Your task to perform on an android device: turn notification dots off Image 0: 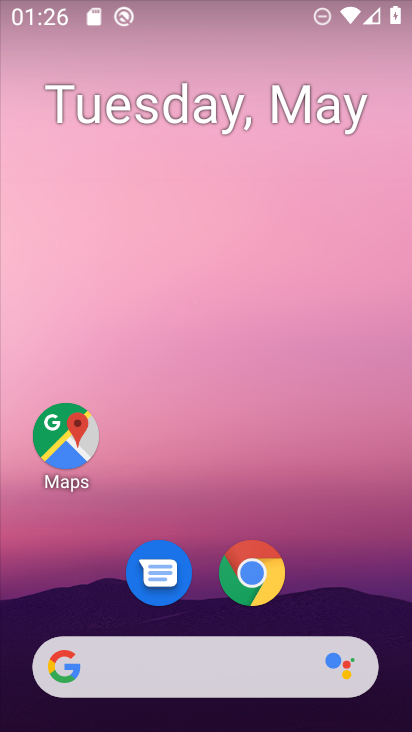
Step 0: drag from (328, 498) to (198, 22)
Your task to perform on an android device: turn notification dots off Image 1: 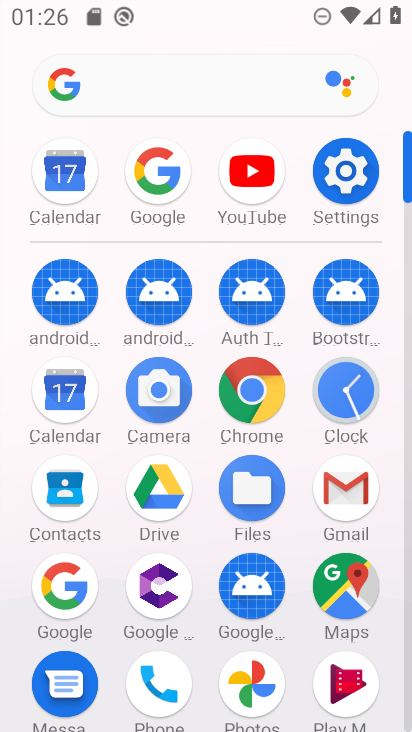
Step 1: click (341, 167)
Your task to perform on an android device: turn notification dots off Image 2: 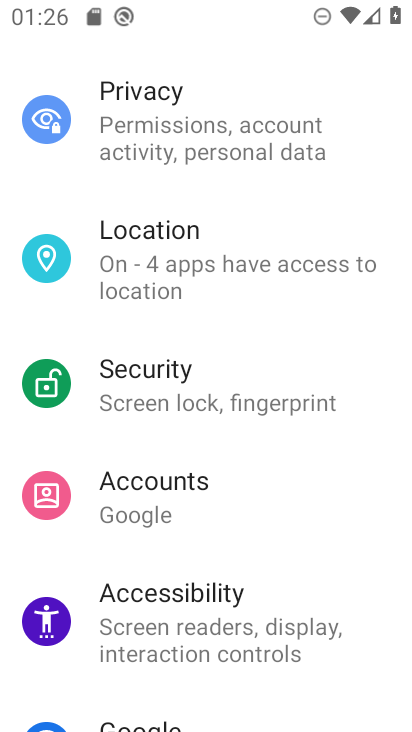
Step 2: drag from (249, 201) to (246, 641)
Your task to perform on an android device: turn notification dots off Image 3: 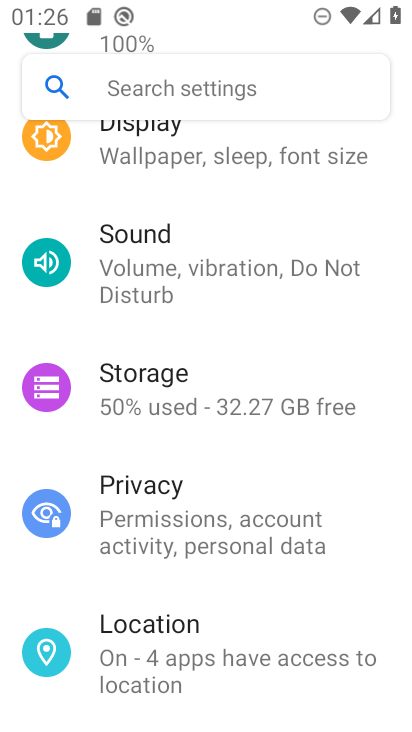
Step 3: drag from (242, 201) to (203, 604)
Your task to perform on an android device: turn notification dots off Image 4: 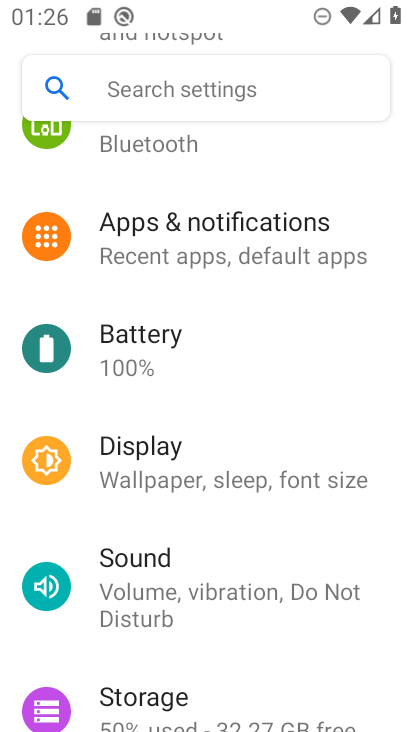
Step 4: click (217, 224)
Your task to perform on an android device: turn notification dots off Image 5: 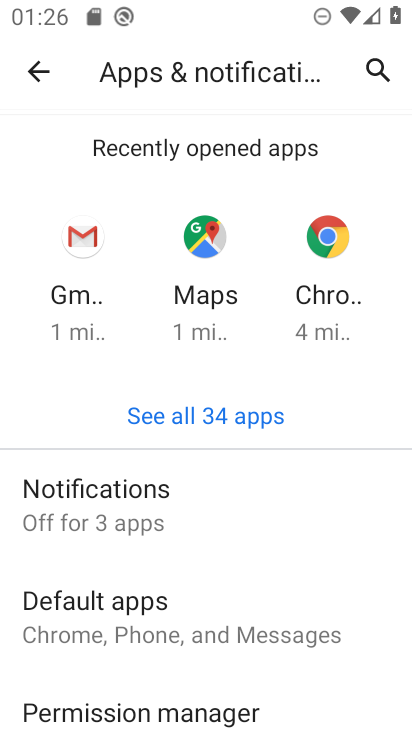
Step 5: click (175, 518)
Your task to perform on an android device: turn notification dots off Image 6: 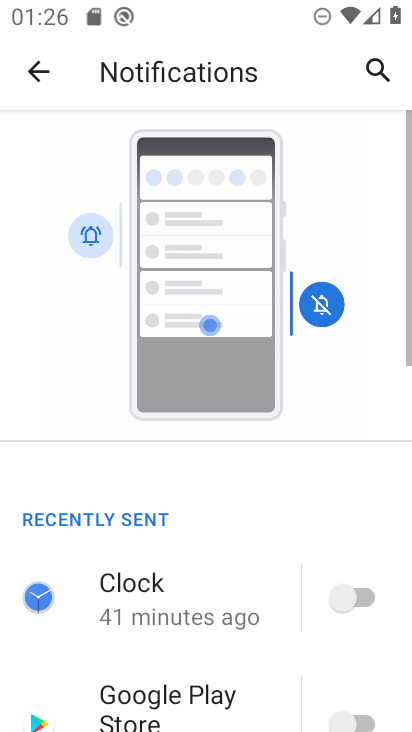
Step 6: drag from (274, 649) to (245, 147)
Your task to perform on an android device: turn notification dots off Image 7: 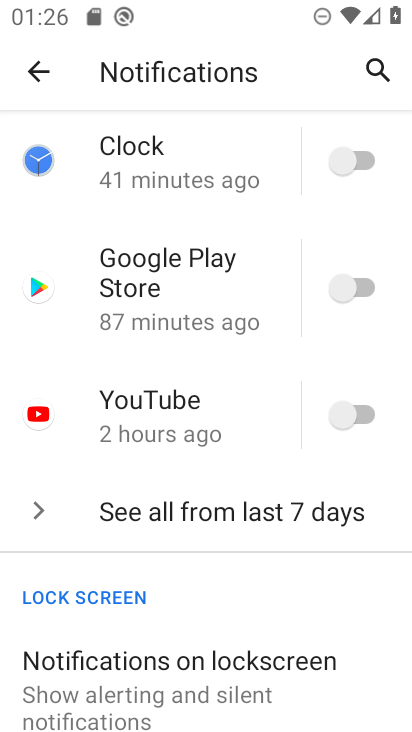
Step 7: drag from (234, 552) to (208, 155)
Your task to perform on an android device: turn notification dots off Image 8: 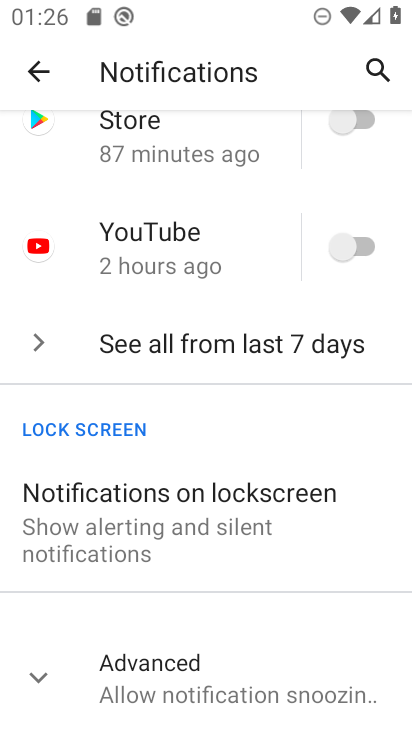
Step 8: click (206, 669)
Your task to perform on an android device: turn notification dots off Image 9: 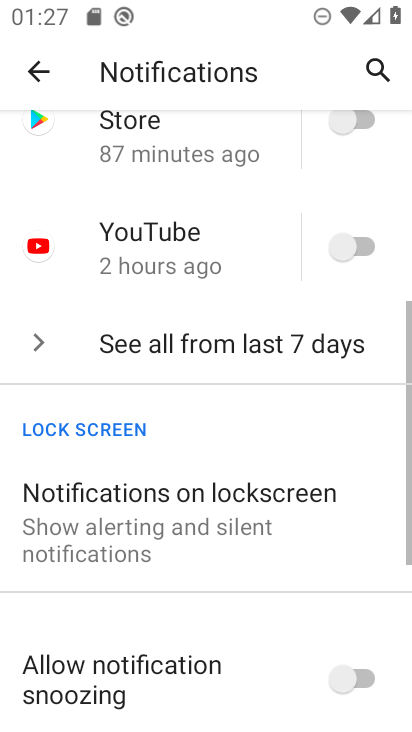
Step 9: task complete